Your task to perform on an android device: toggle airplane mode Image 0: 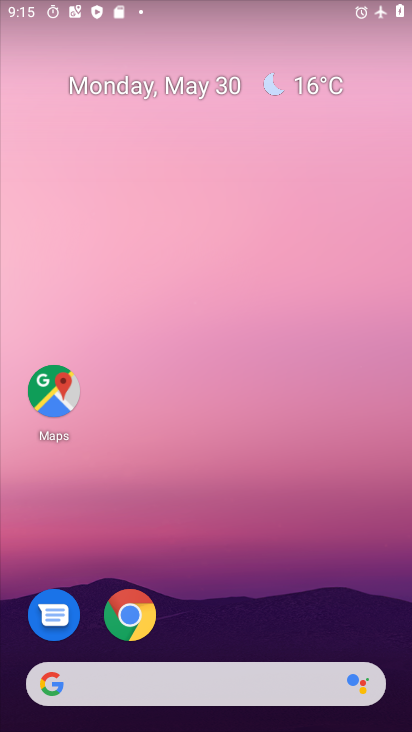
Step 0: drag from (339, 543) to (408, 109)
Your task to perform on an android device: toggle airplane mode Image 1: 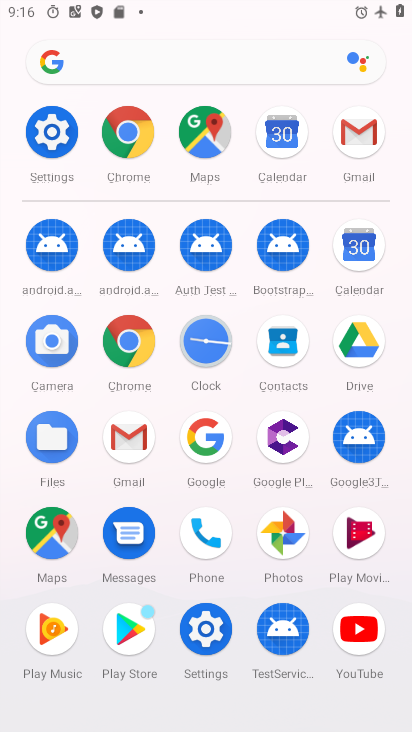
Step 1: click (46, 122)
Your task to perform on an android device: toggle airplane mode Image 2: 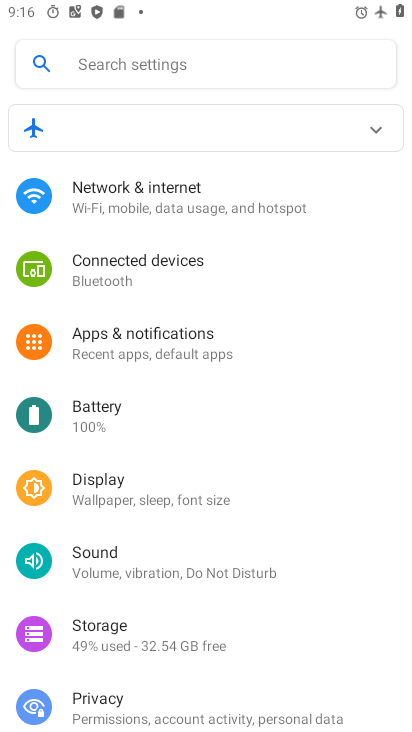
Step 2: click (161, 201)
Your task to perform on an android device: toggle airplane mode Image 3: 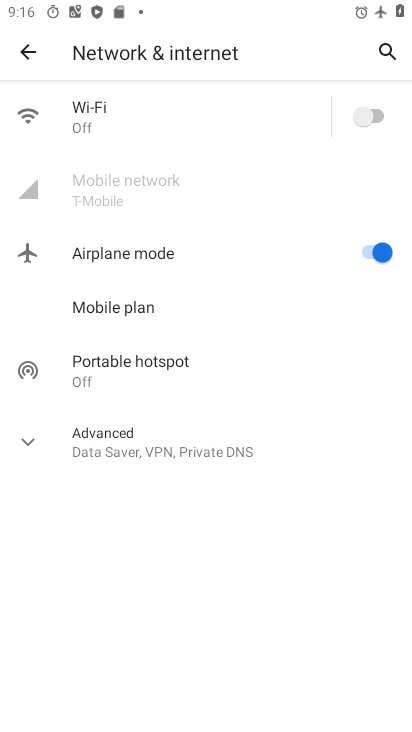
Step 3: click (382, 252)
Your task to perform on an android device: toggle airplane mode Image 4: 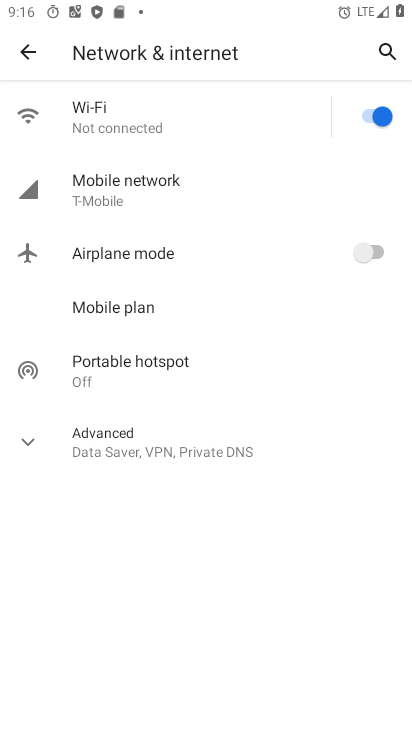
Step 4: task complete